Your task to perform on an android device: turn on location history Image 0: 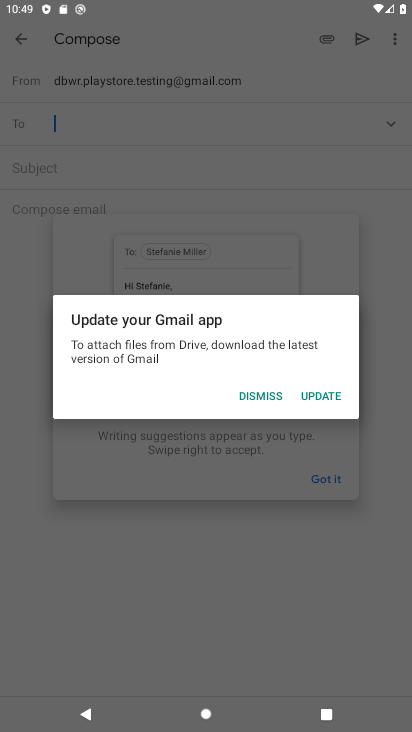
Step 0: press home button
Your task to perform on an android device: turn on location history Image 1: 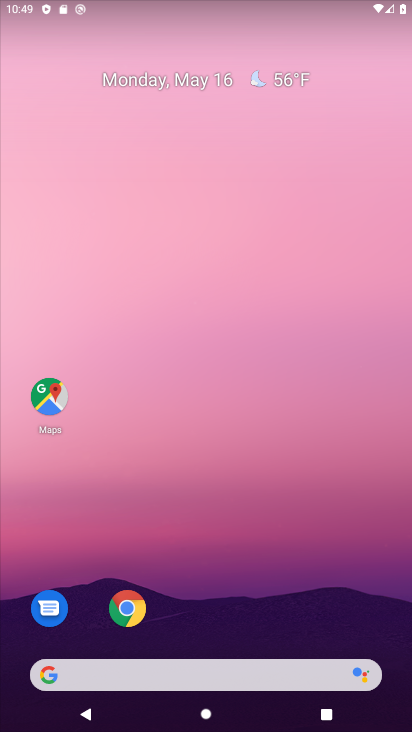
Step 1: drag from (386, 631) to (397, 186)
Your task to perform on an android device: turn on location history Image 2: 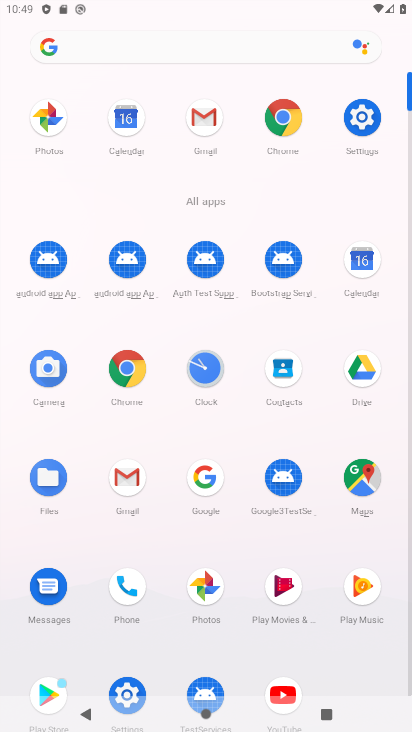
Step 2: click (370, 122)
Your task to perform on an android device: turn on location history Image 3: 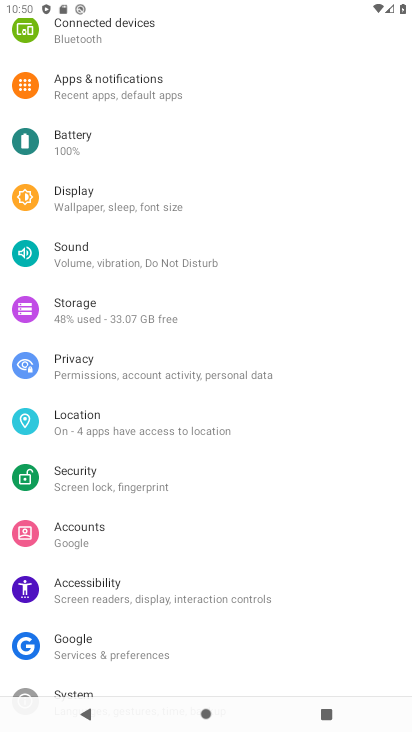
Step 3: click (178, 432)
Your task to perform on an android device: turn on location history Image 4: 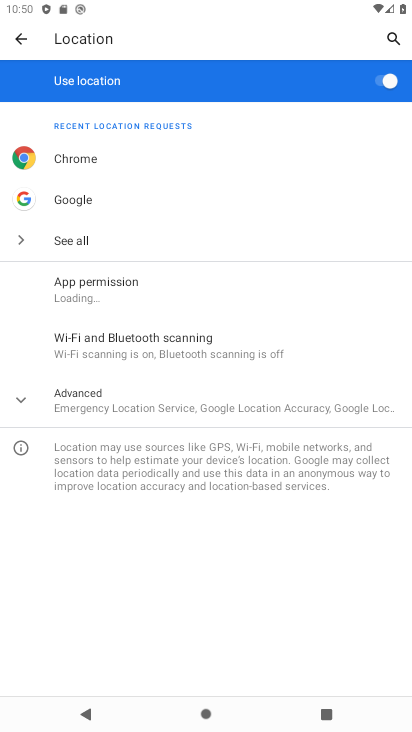
Step 4: click (193, 404)
Your task to perform on an android device: turn on location history Image 5: 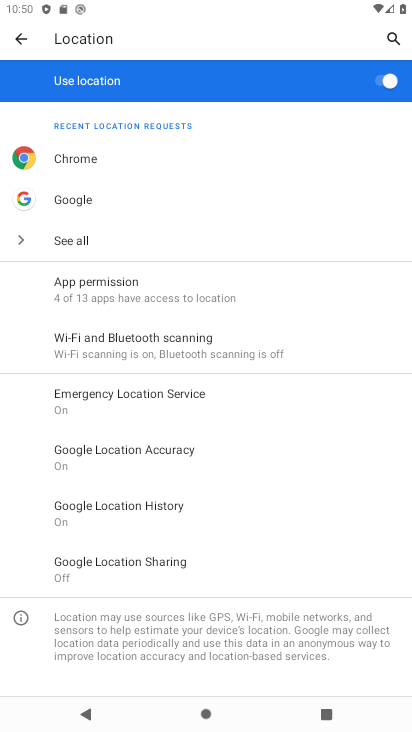
Step 5: click (192, 506)
Your task to perform on an android device: turn on location history Image 6: 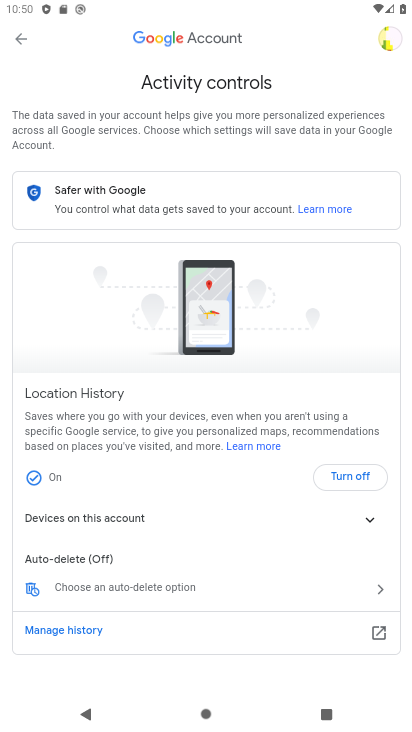
Step 6: click (180, 617)
Your task to perform on an android device: turn on location history Image 7: 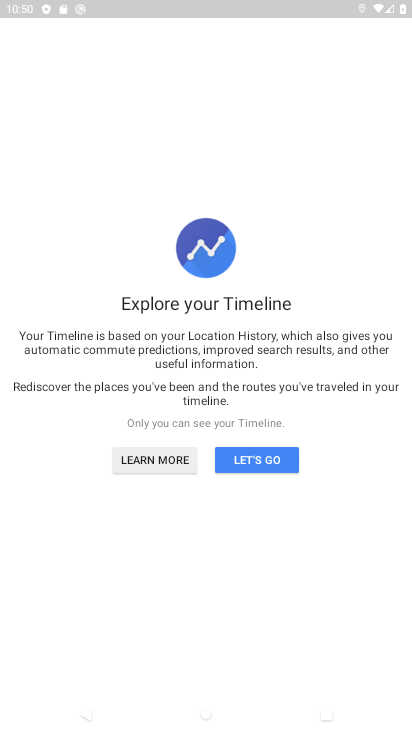
Step 7: click (252, 464)
Your task to perform on an android device: turn on location history Image 8: 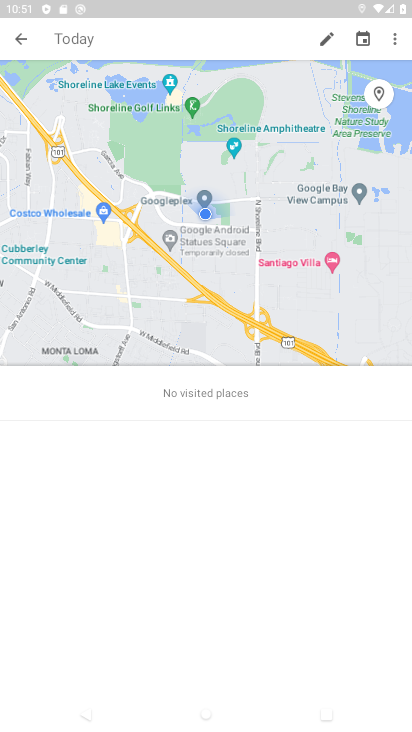
Step 8: drag from (391, 44) to (350, 252)
Your task to perform on an android device: turn on location history Image 9: 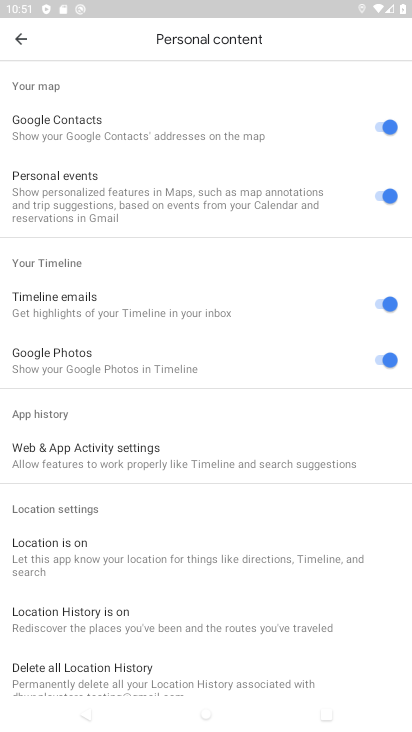
Step 9: click (106, 550)
Your task to perform on an android device: turn on location history Image 10: 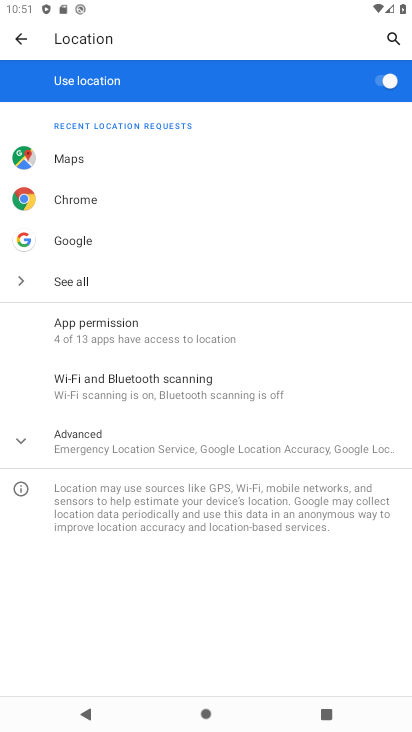
Step 10: click (137, 441)
Your task to perform on an android device: turn on location history Image 11: 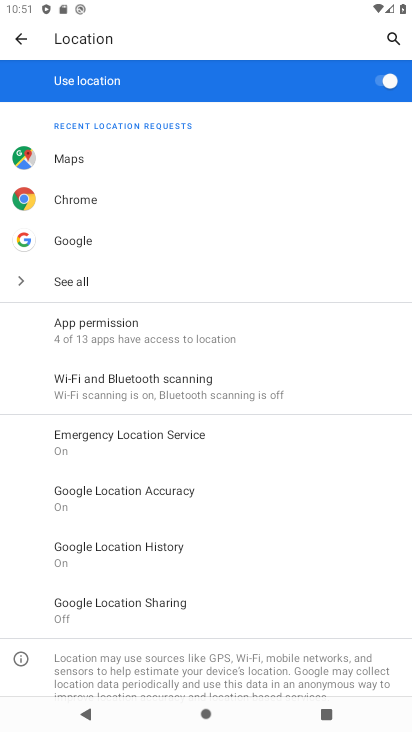
Step 11: click (131, 544)
Your task to perform on an android device: turn on location history Image 12: 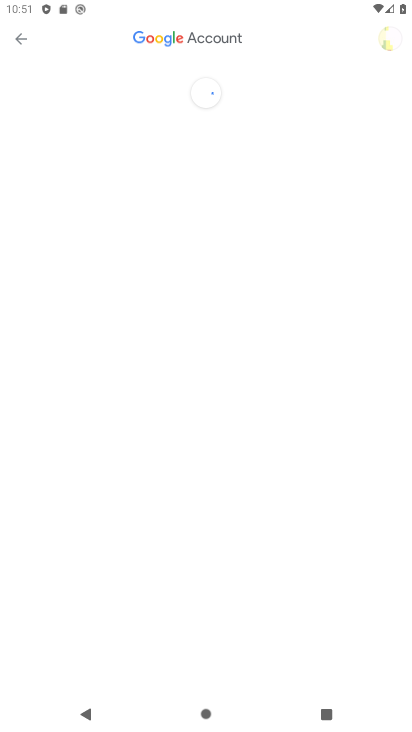
Step 12: task complete